Your task to perform on an android device: delete browsing data in the chrome app Image 0: 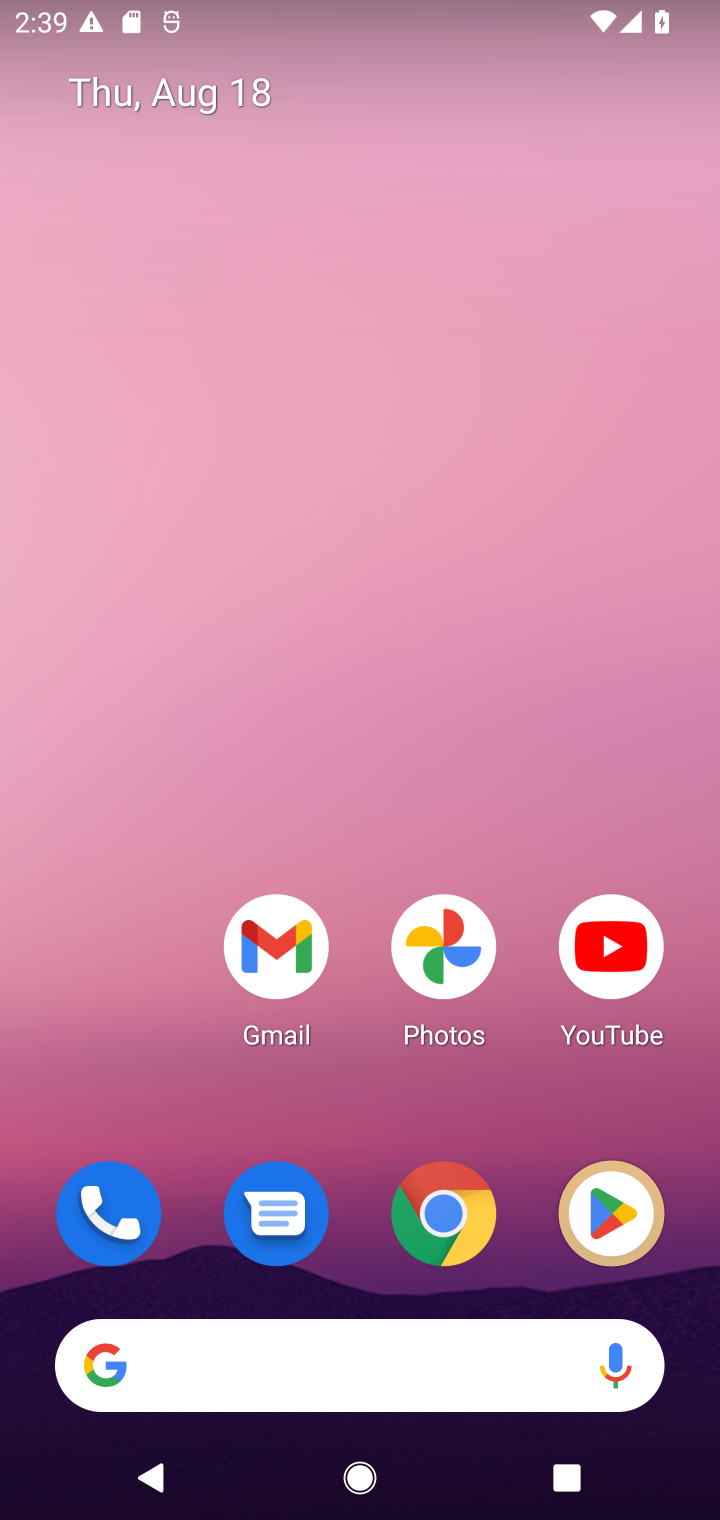
Step 0: press home button
Your task to perform on an android device: delete browsing data in the chrome app Image 1: 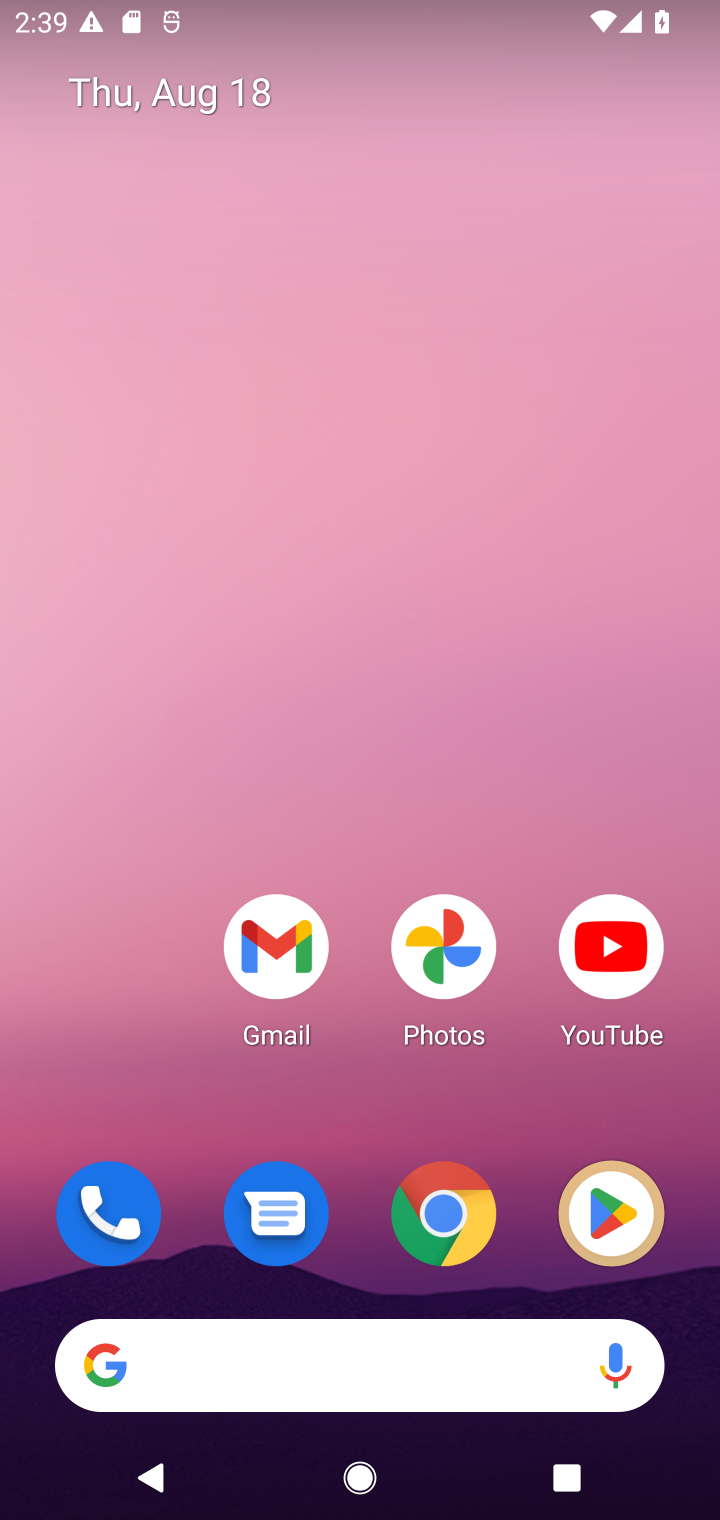
Step 1: click (434, 1233)
Your task to perform on an android device: delete browsing data in the chrome app Image 2: 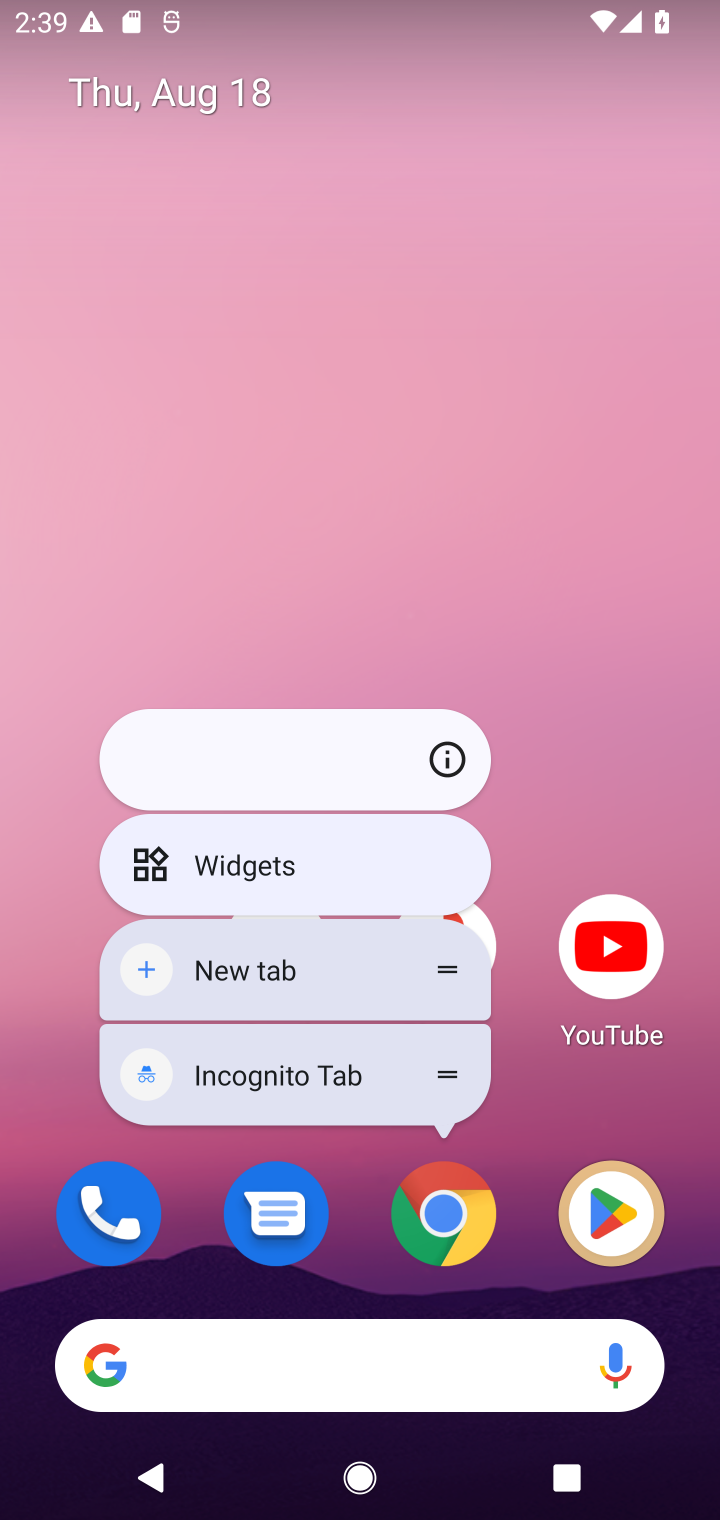
Step 2: click (467, 1232)
Your task to perform on an android device: delete browsing data in the chrome app Image 3: 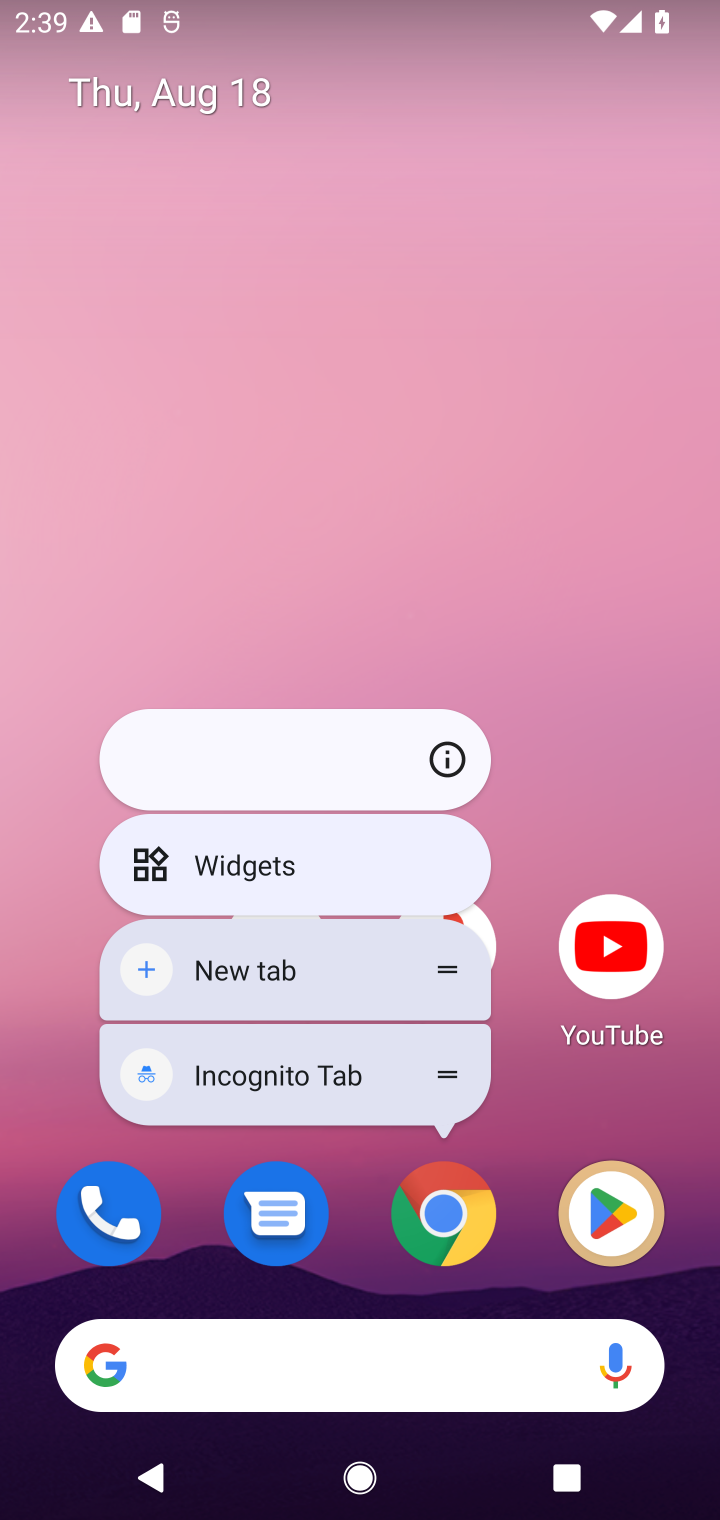
Step 3: click (467, 1232)
Your task to perform on an android device: delete browsing data in the chrome app Image 4: 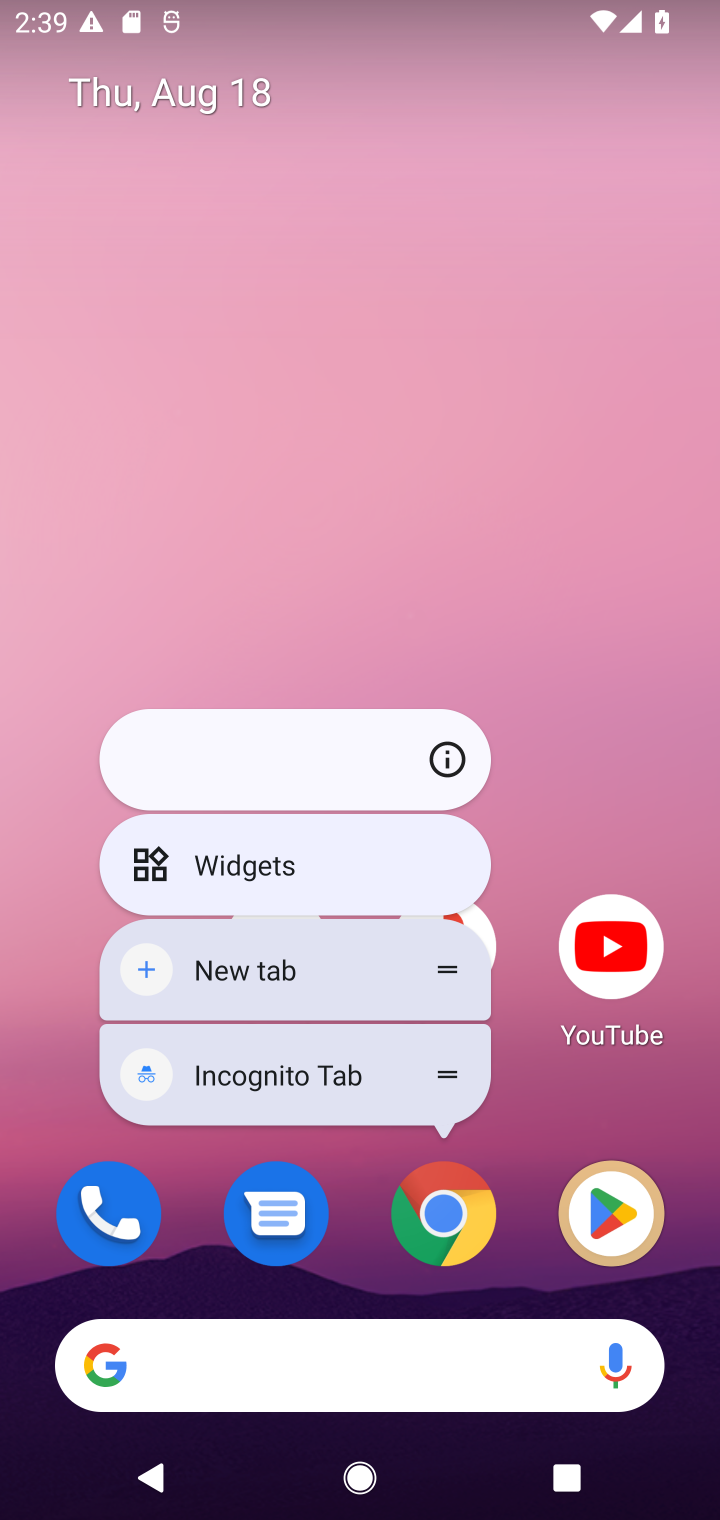
Step 4: click (435, 1234)
Your task to perform on an android device: delete browsing data in the chrome app Image 5: 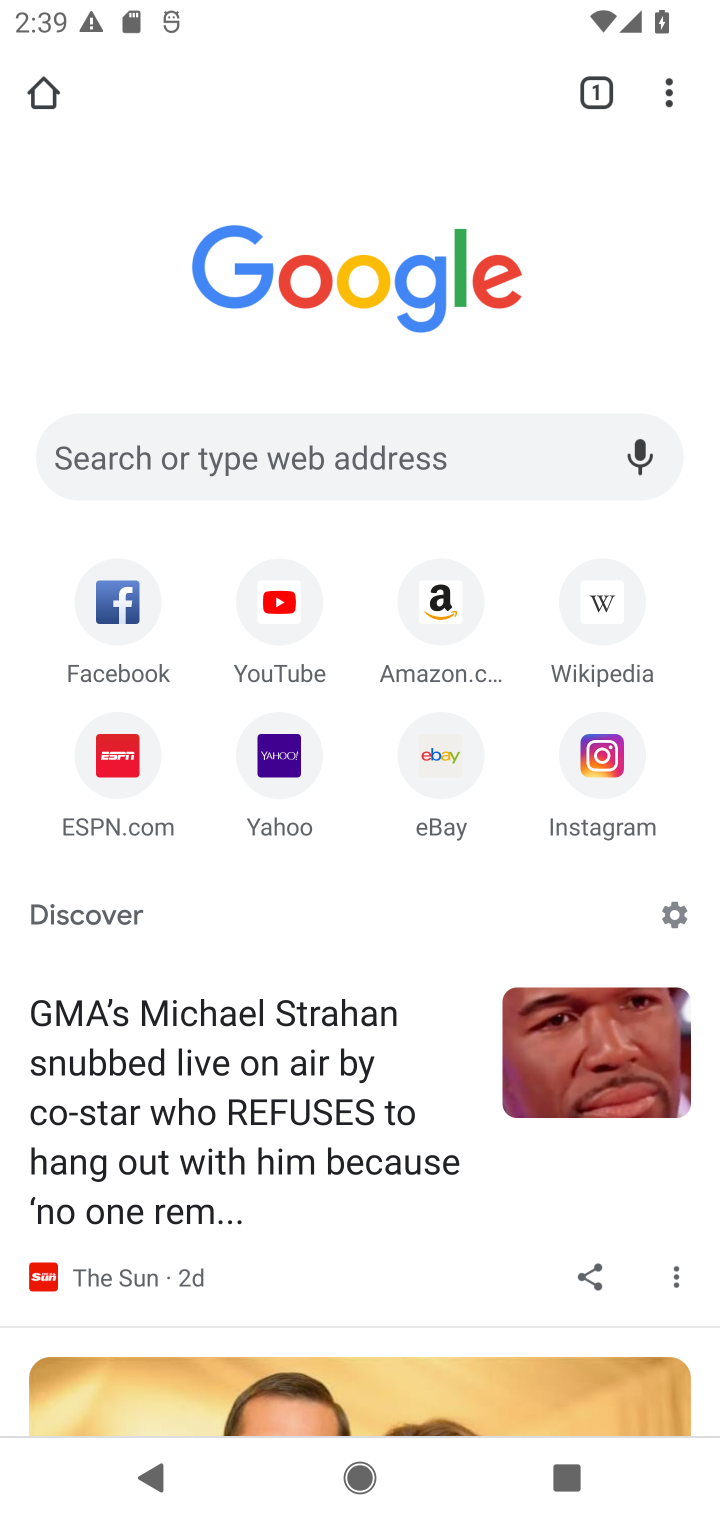
Step 5: drag from (669, 89) to (387, 859)
Your task to perform on an android device: delete browsing data in the chrome app Image 6: 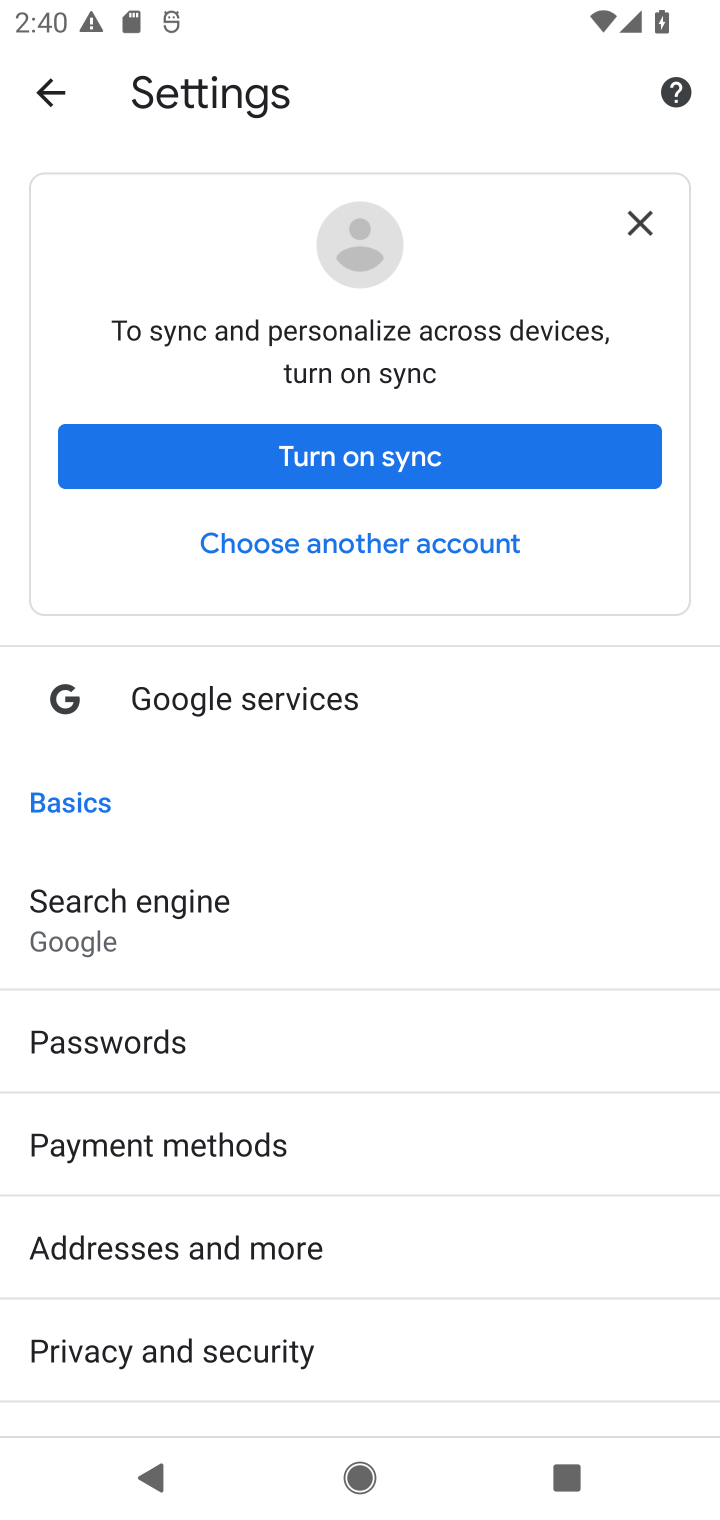
Step 6: drag from (298, 815) to (279, 220)
Your task to perform on an android device: delete browsing data in the chrome app Image 7: 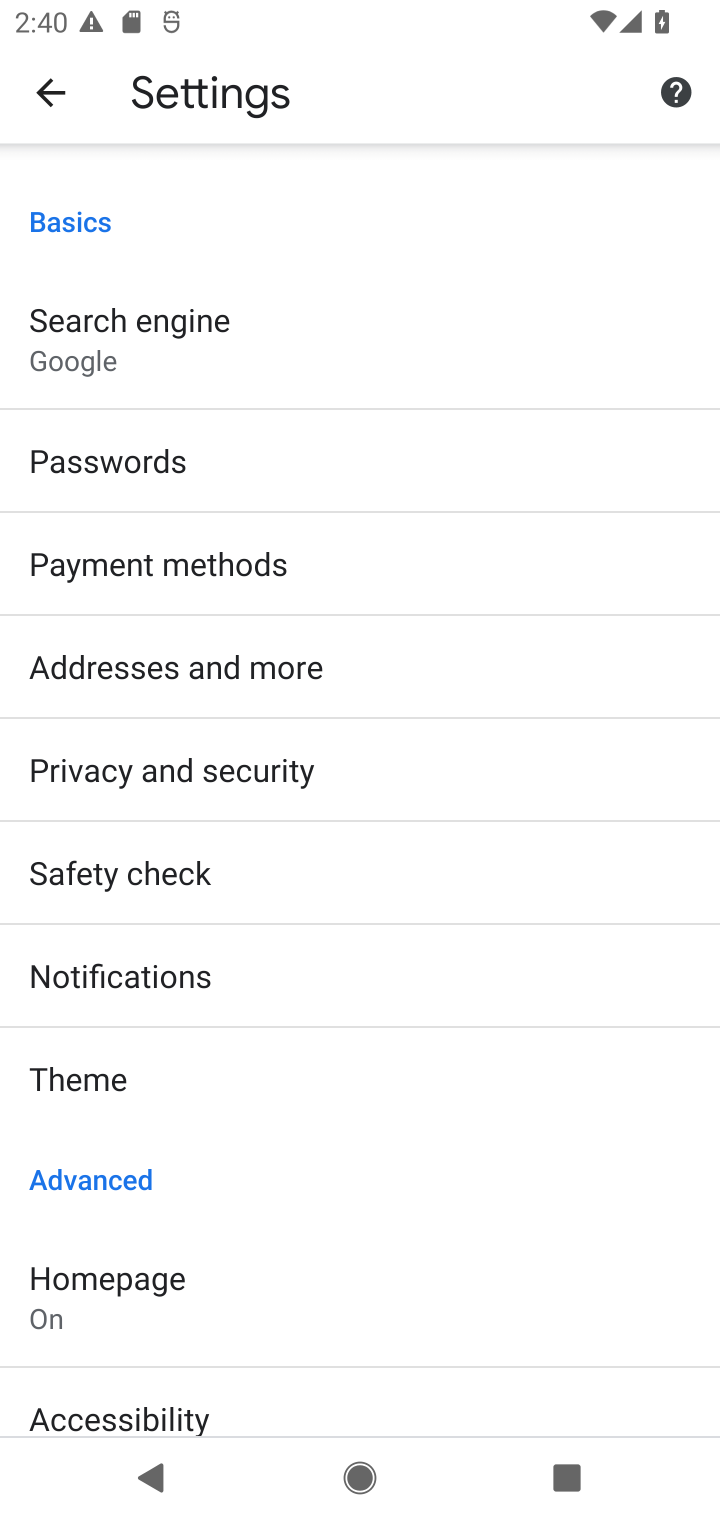
Step 7: click (158, 769)
Your task to perform on an android device: delete browsing data in the chrome app Image 8: 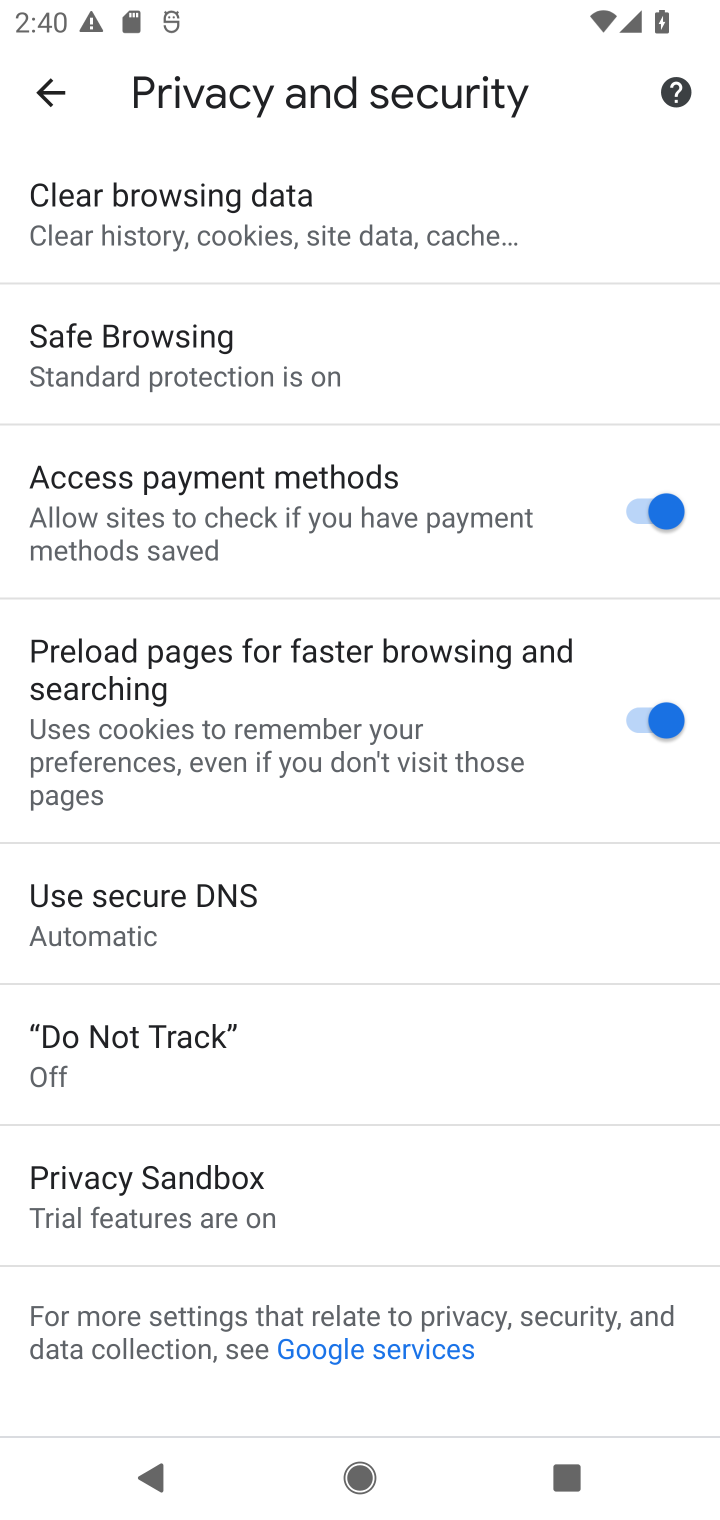
Step 8: click (306, 168)
Your task to perform on an android device: delete browsing data in the chrome app Image 9: 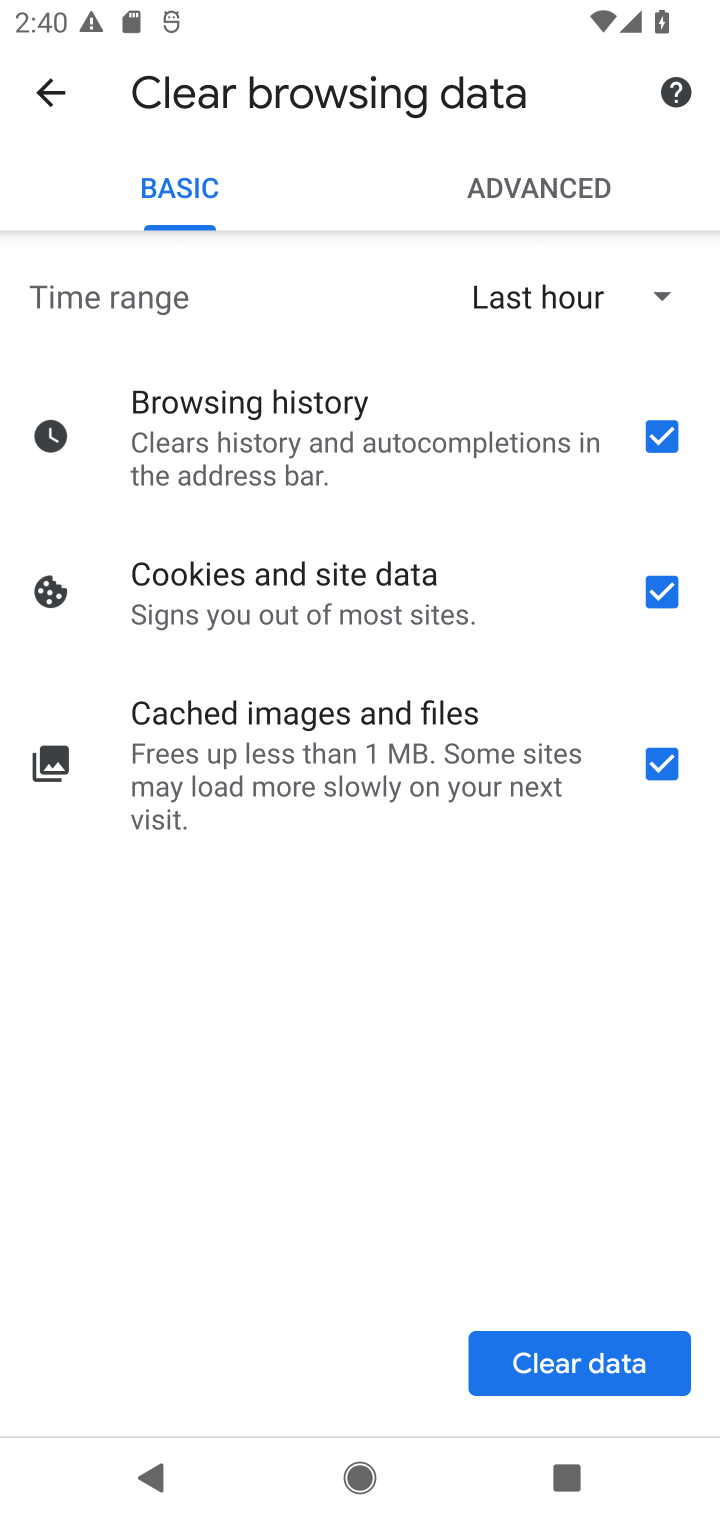
Step 9: click (594, 1352)
Your task to perform on an android device: delete browsing data in the chrome app Image 10: 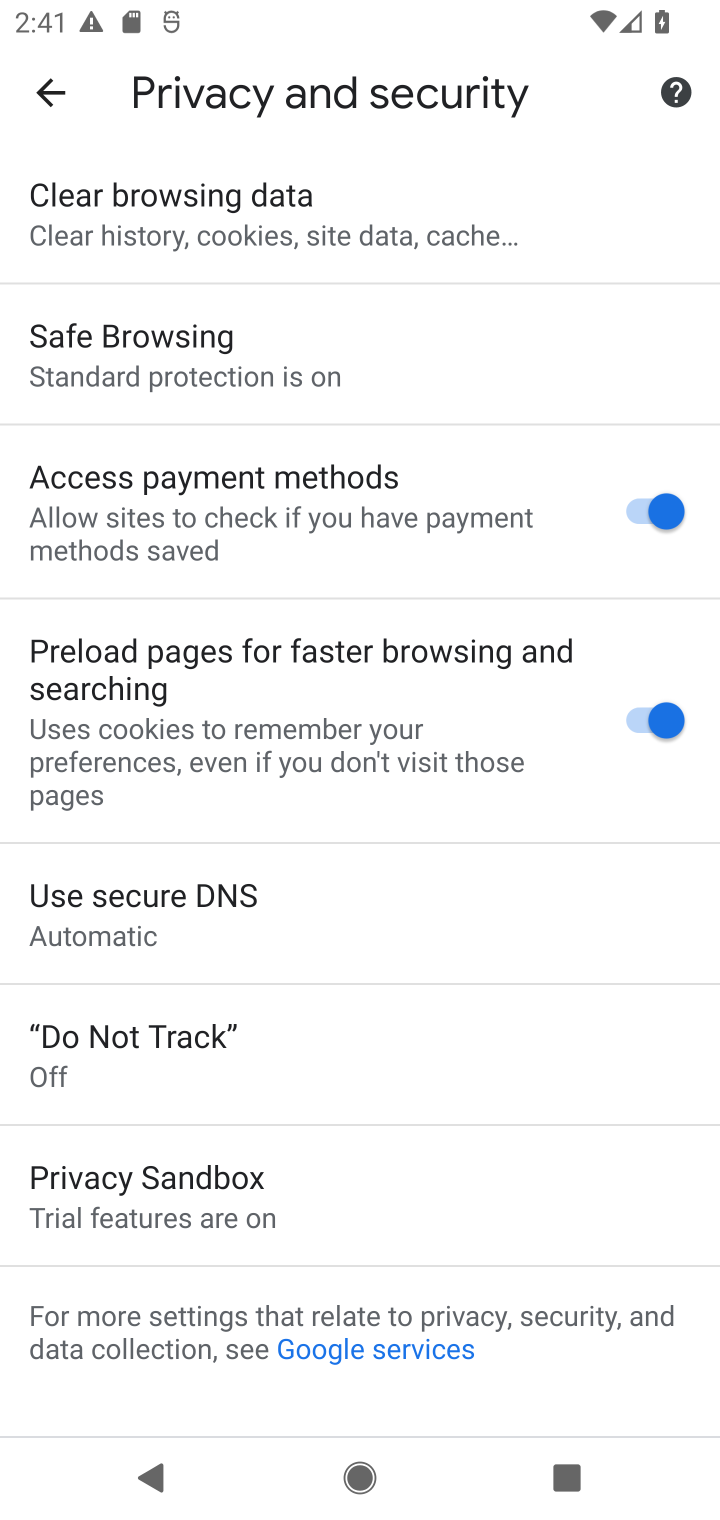
Step 10: click (265, 213)
Your task to perform on an android device: delete browsing data in the chrome app Image 11: 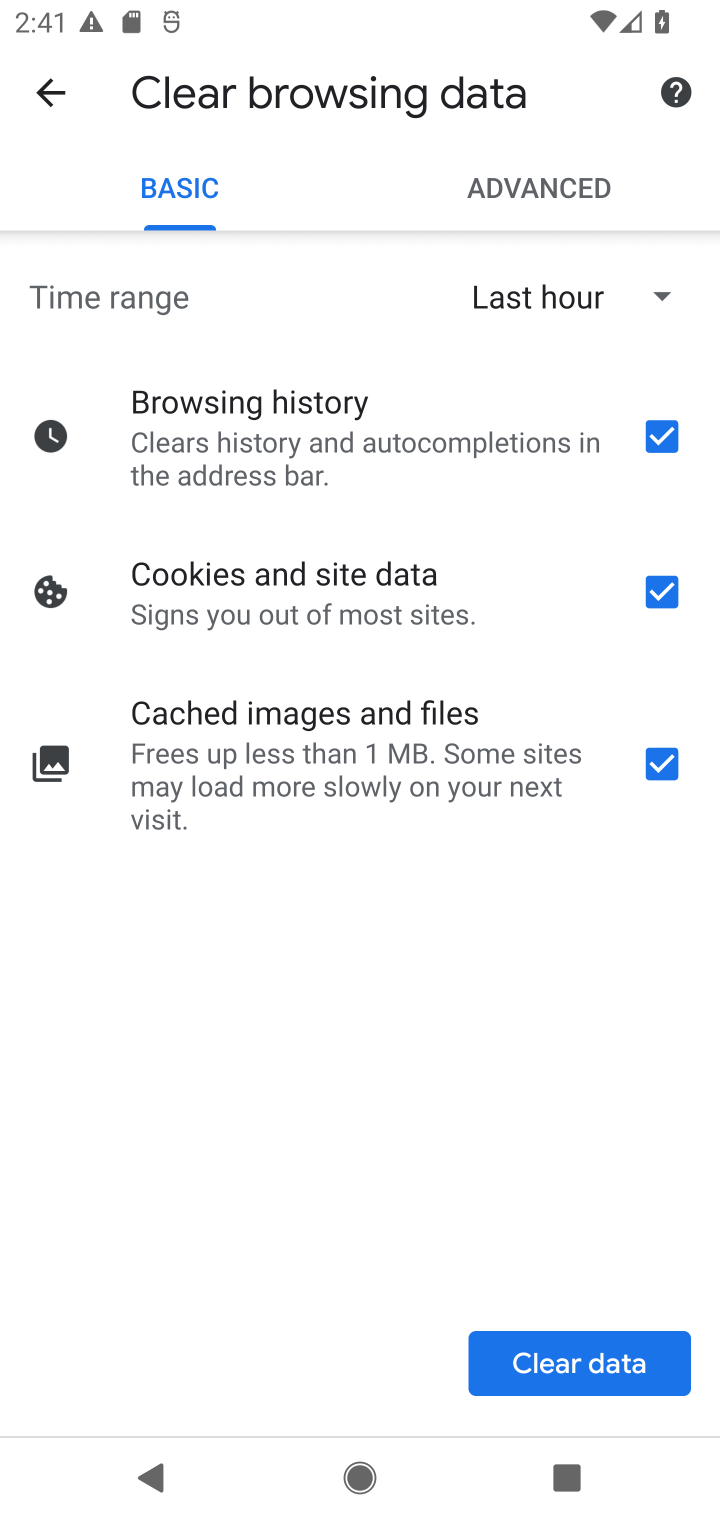
Step 11: click (652, 1374)
Your task to perform on an android device: delete browsing data in the chrome app Image 12: 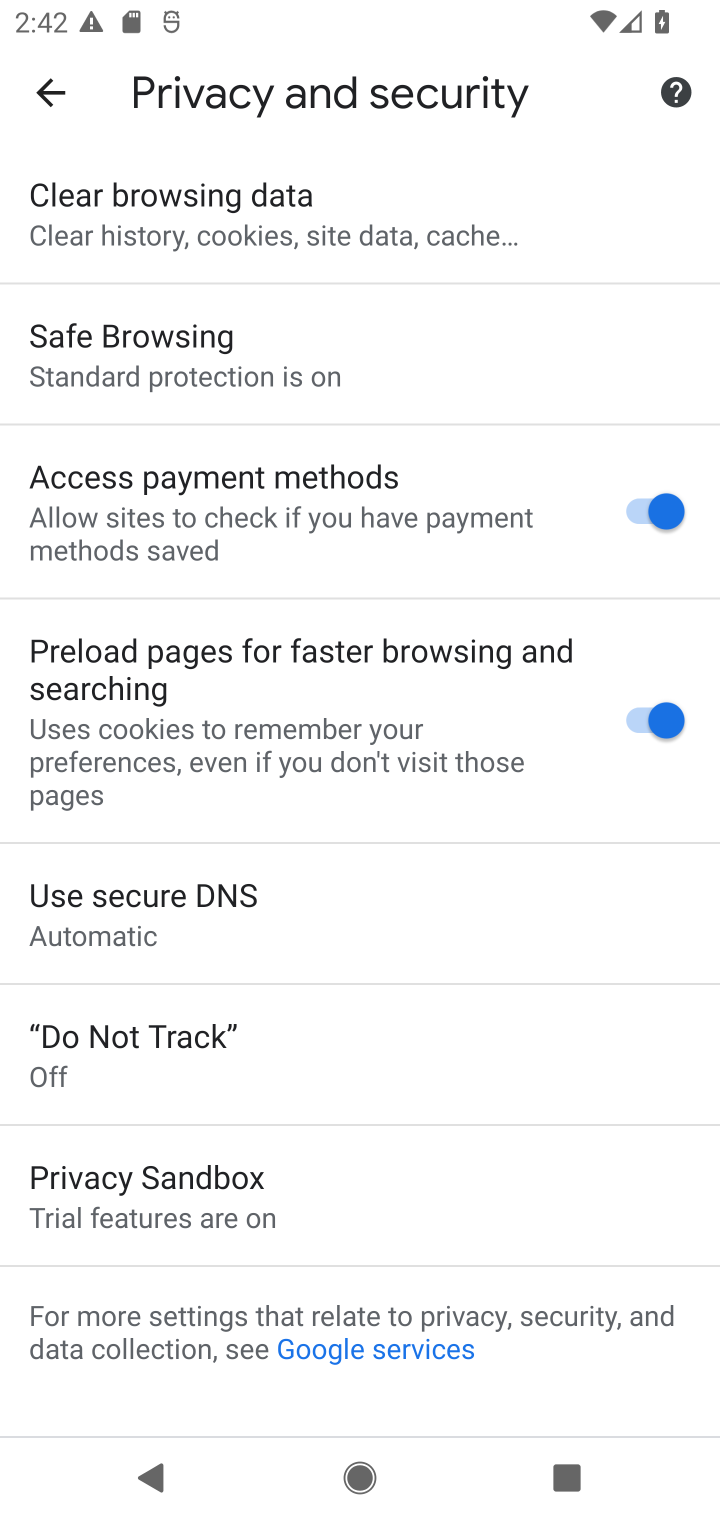
Step 12: task complete